Your task to perform on an android device: Open battery settings Image 0: 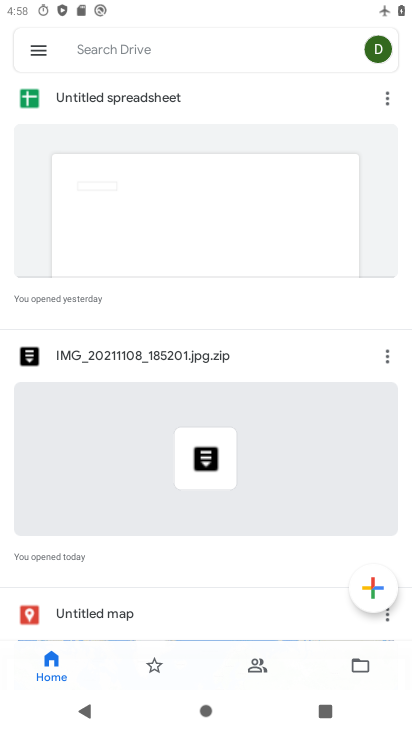
Step 0: press home button
Your task to perform on an android device: Open battery settings Image 1: 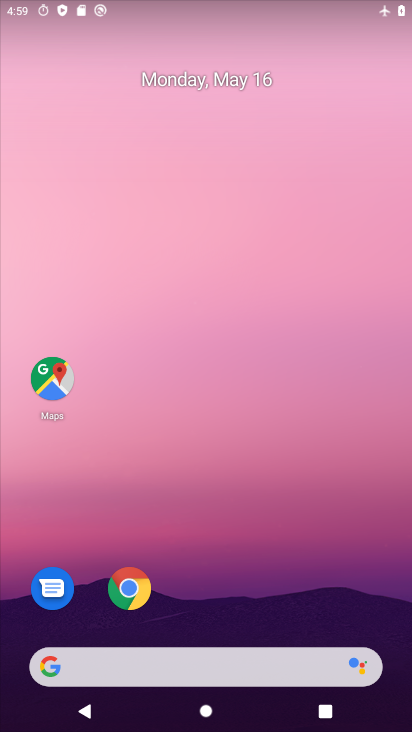
Step 1: drag from (256, 593) to (223, 70)
Your task to perform on an android device: Open battery settings Image 2: 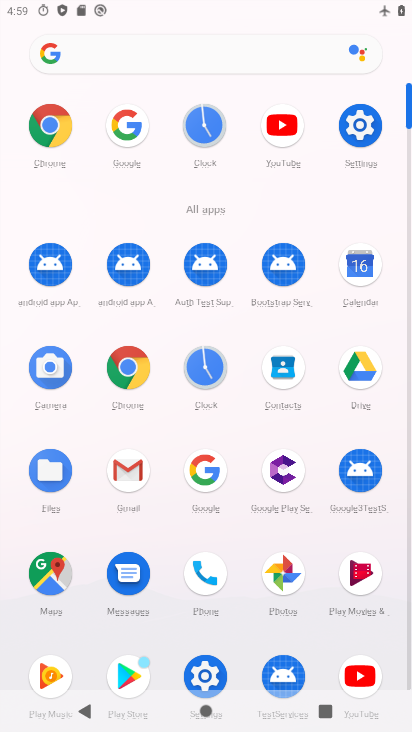
Step 2: click (354, 126)
Your task to perform on an android device: Open battery settings Image 3: 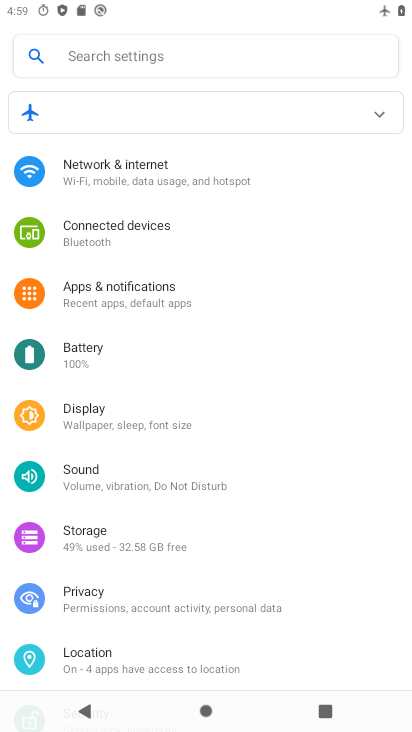
Step 3: click (126, 357)
Your task to perform on an android device: Open battery settings Image 4: 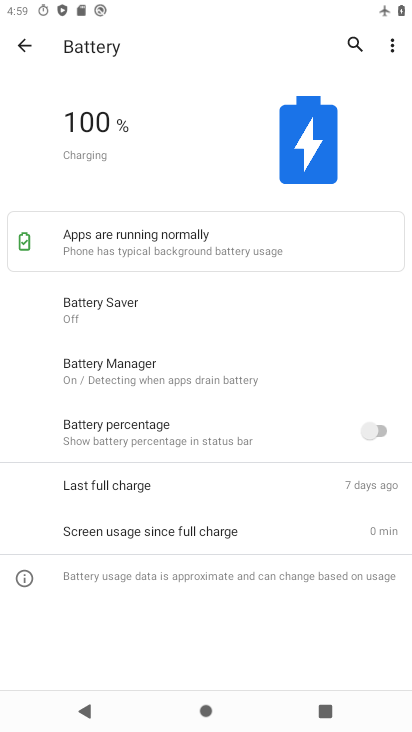
Step 4: task complete